Your task to perform on an android device: What's on my calendar tomorrow? Image 0: 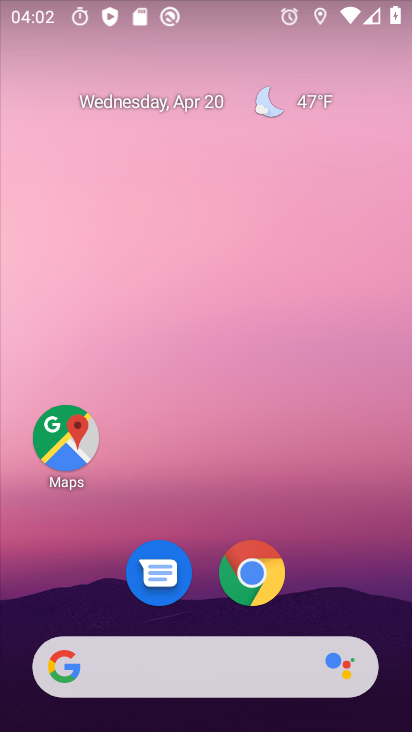
Step 0: drag from (211, 719) to (169, 183)
Your task to perform on an android device: What's on my calendar tomorrow? Image 1: 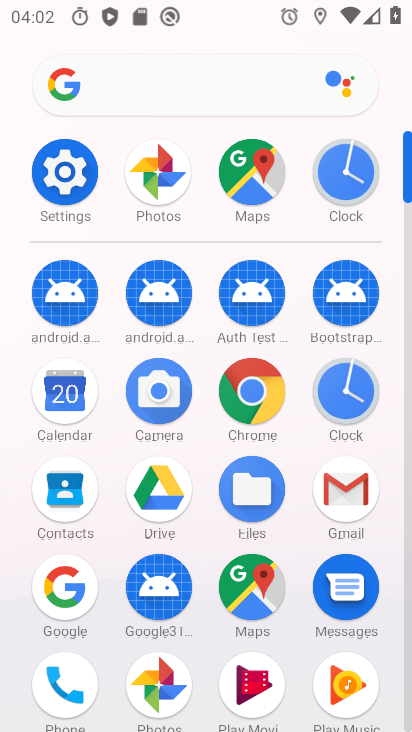
Step 1: click (64, 384)
Your task to perform on an android device: What's on my calendar tomorrow? Image 2: 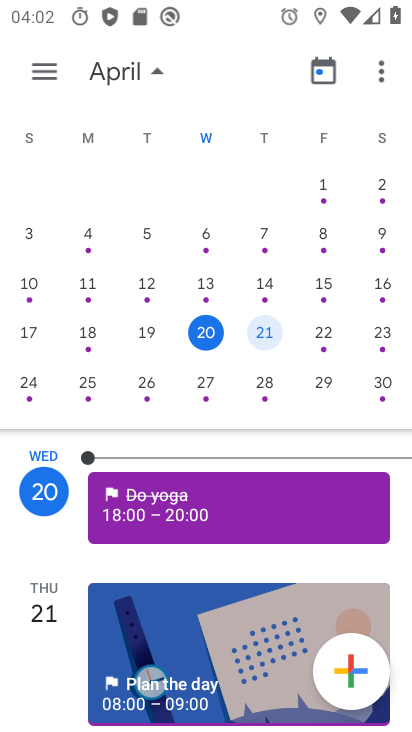
Step 2: click (260, 329)
Your task to perform on an android device: What's on my calendar tomorrow? Image 3: 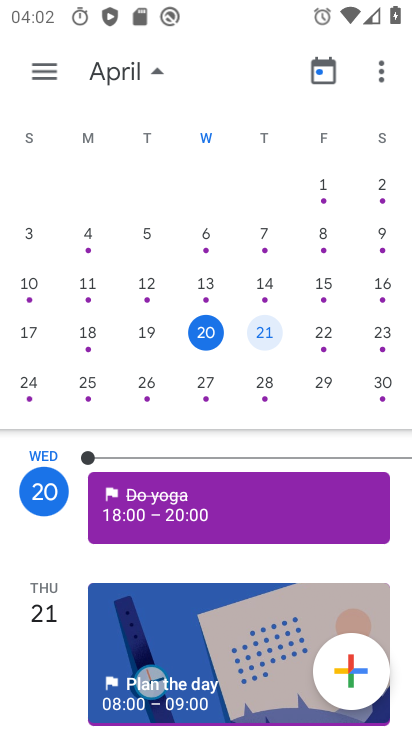
Step 3: click (264, 327)
Your task to perform on an android device: What's on my calendar tomorrow? Image 4: 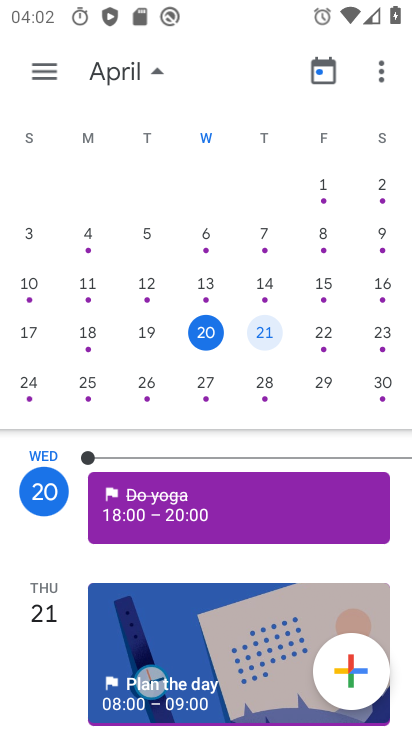
Step 4: click (264, 326)
Your task to perform on an android device: What's on my calendar tomorrow? Image 5: 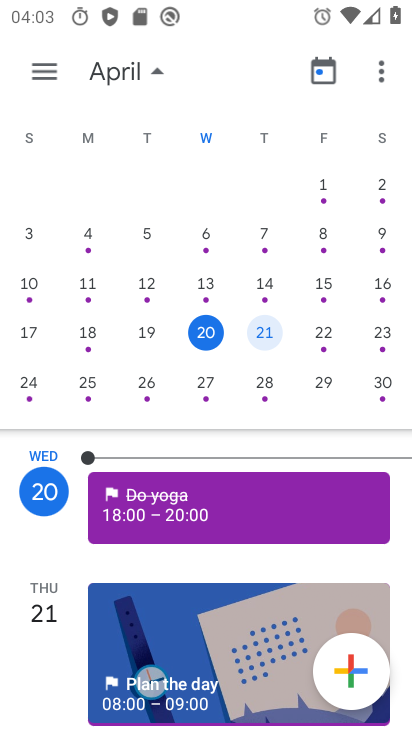
Step 5: click (262, 332)
Your task to perform on an android device: What's on my calendar tomorrow? Image 6: 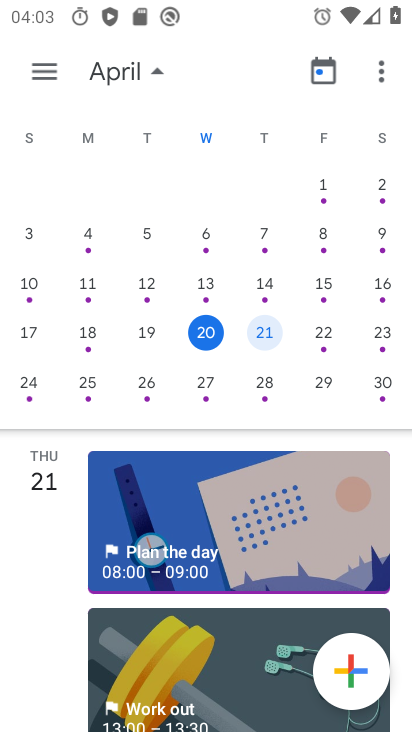
Step 6: click (262, 332)
Your task to perform on an android device: What's on my calendar tomorrow? Image 7: 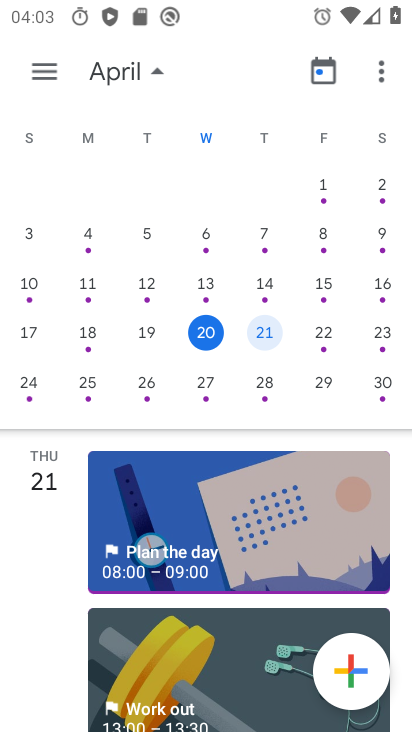
Step 7: click (262, 332)
Your task to perform on an android device: What's on my calendar tomorrow? Image 8: 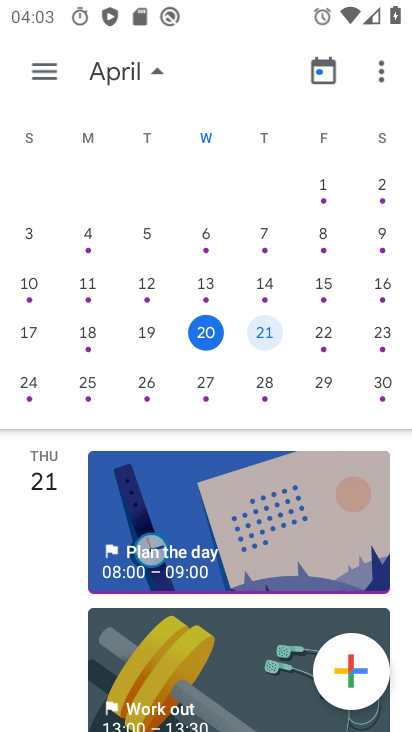
Step 8: drag from (176, 530) to (164, 373)
Your task to perform on an android device: What's on my calendar tomorrow? Image 9: 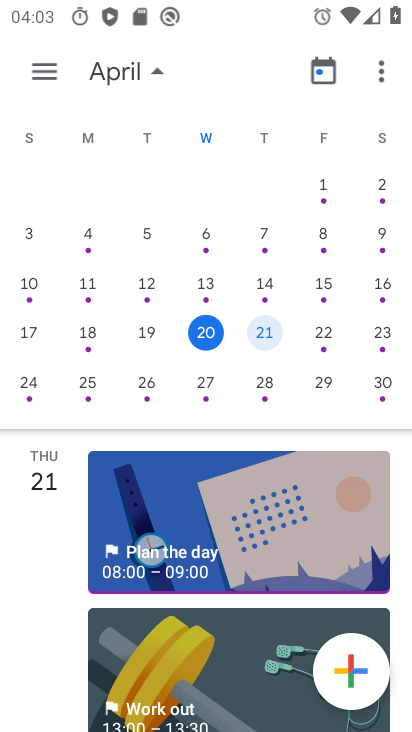
Step 9: click (265, 164)
Your task to perform on an android device: What's on my calendar tomorrow? Image 10: 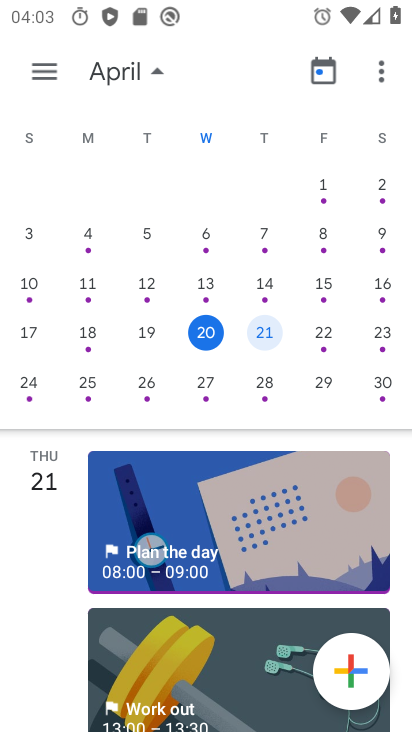
Step 10: click (267, 325)
Your task to perform on an android device: What's on my calendar tomorrow? Image 11: 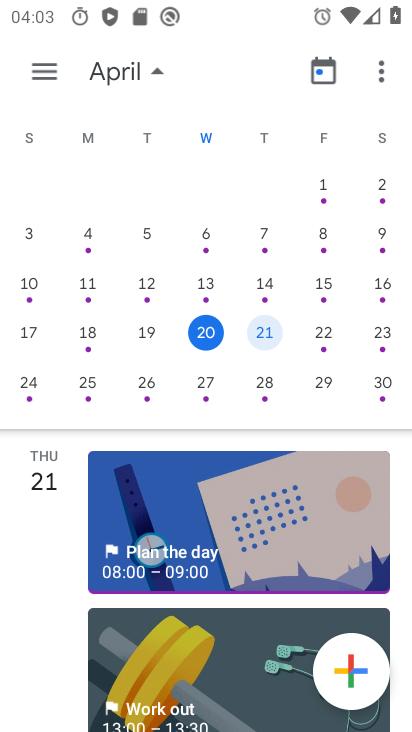
Step 11: click (266, 323)
Your task to perform on an android device: What's on my calendar tomorrow? Image 12: 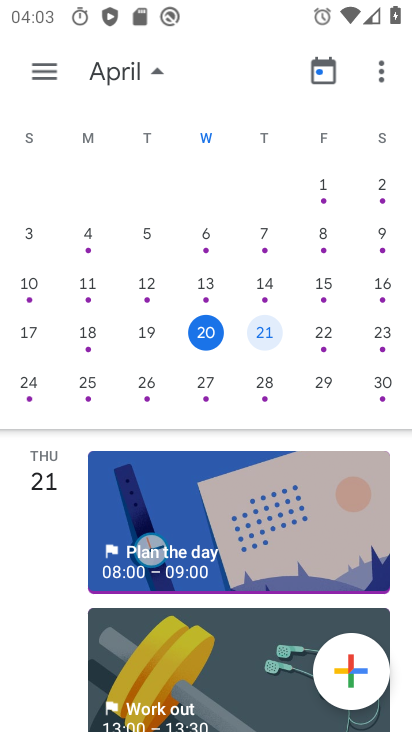
Step 12: task complete